Your task to perform on an android device: toggle improve location accuracy Image 0: 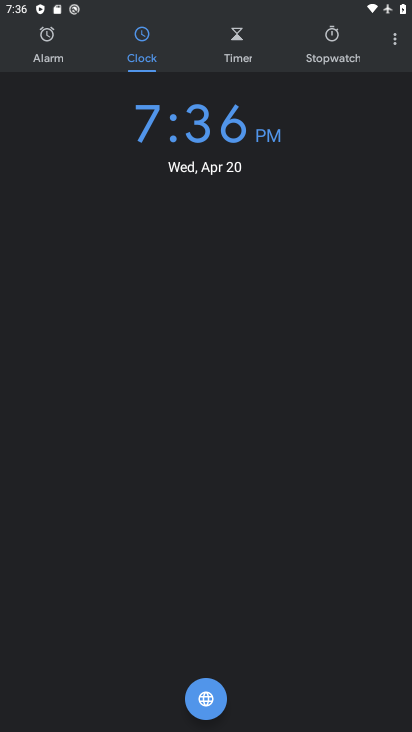
Step 0: press home button
Your task to perform on an android device: toggle improve location accuracy Image 1: 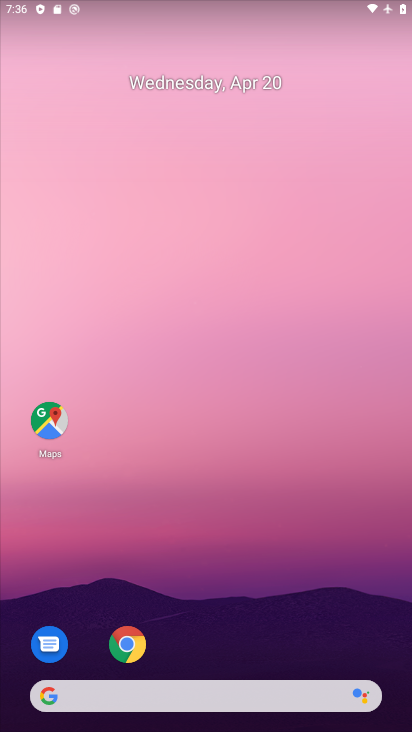
Step 1: drag from (336, 617) to (293, 91)
Your task to perform on an android device: toggle improve location accuracy Image 2: 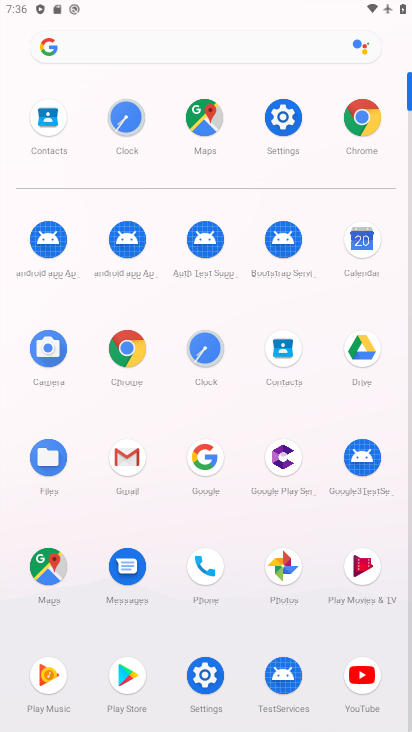
Step 2: click (281, 108)
Your task to perform on an android device: toggle improve location accuracy Image 3: 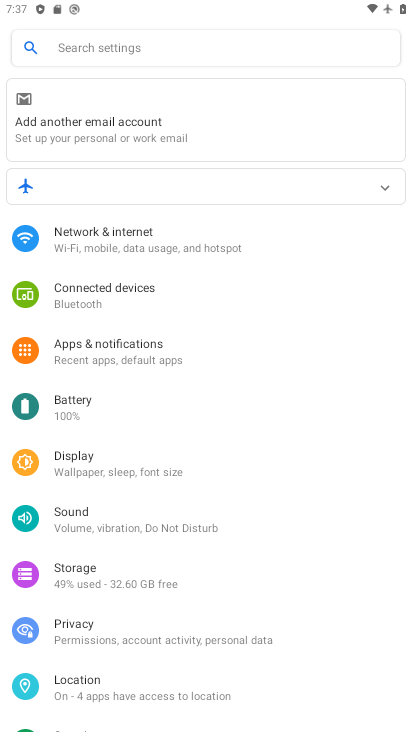
Step 3: click (102, 693)
Your task to perform on an android device: toggle improve location accuracy Image 4: 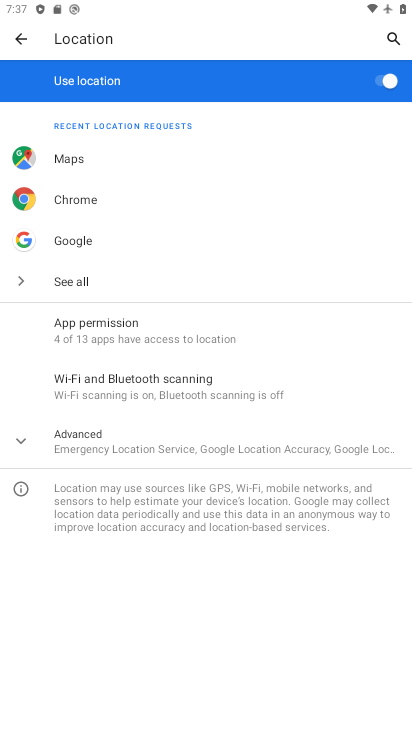
Step 4: click (38, 441)
Your task to perform on an android device: toggle improve location accuracy Image 5: 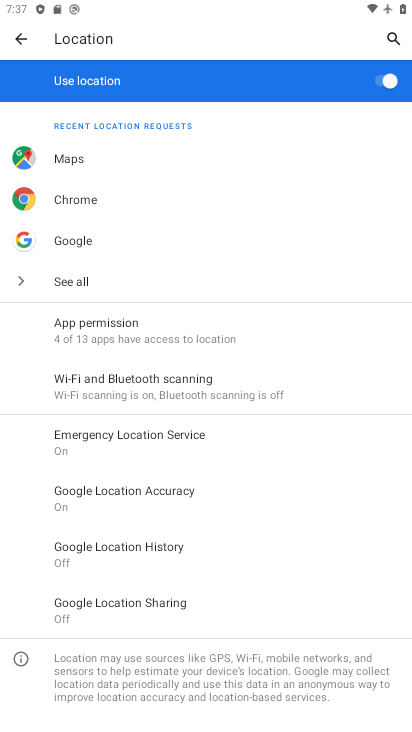
Step 5: click (152, 503)
Your task to perform on an android device: toggle improve location accuracy Image 6: 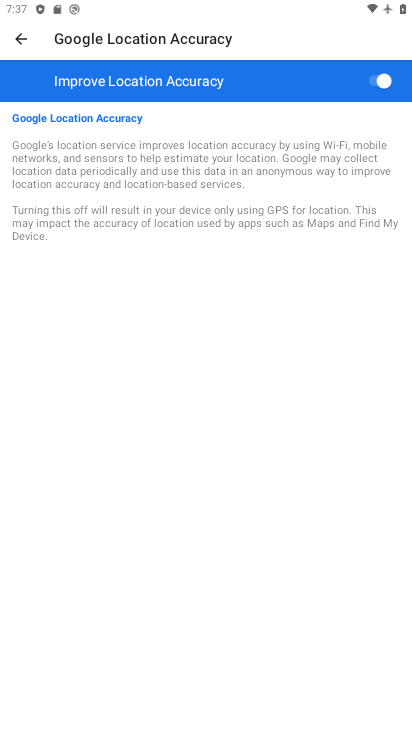
Step 6: click (352, 77)
Your task to perform on an android device: toggle improve location accuracy Image 7: 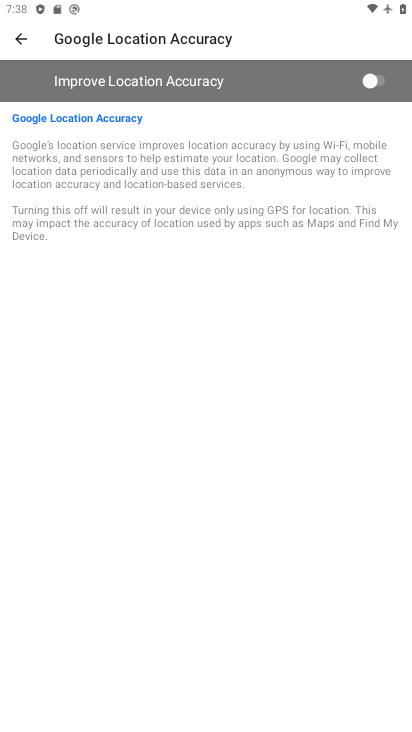
Step 7: task complete